Your task to perform on an android device: Open maps Image 0: 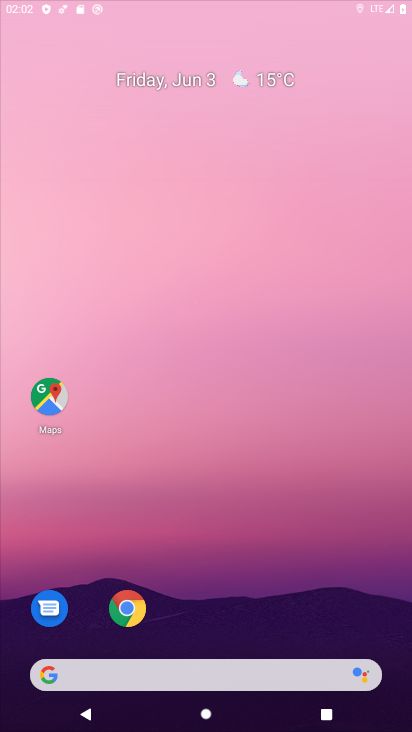
Step 0: drag from (245, 409) to (234, 206)
Your task to perform on an android device: Open maps Image 1: 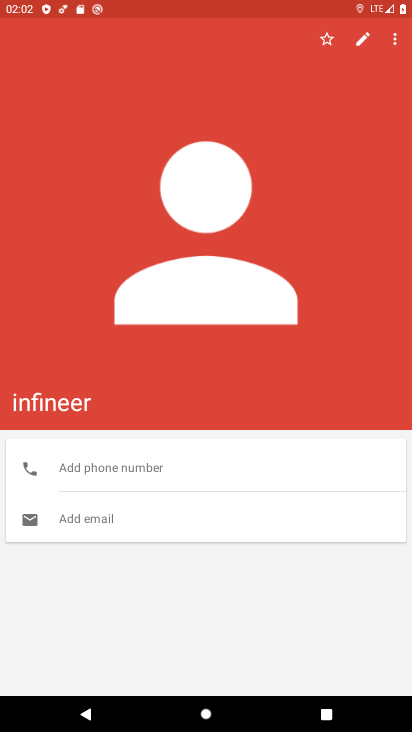
Step 1: press home button
Your task to perform on an android device: Open maps Image 2: 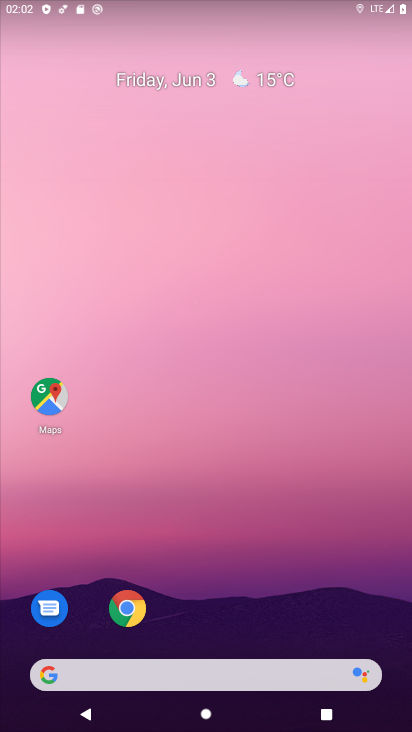
Step 2: click (47, 403)
Your task to perform on an android device: Open maps Image 3: 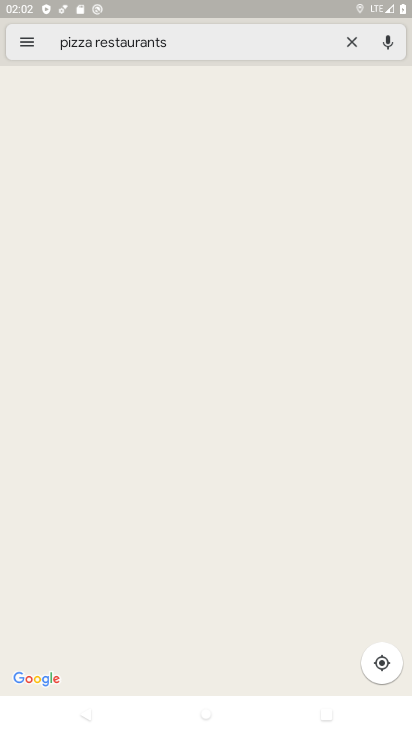
Step 3: task complete